Your task to perform on an android device: turn off location history Image 0: 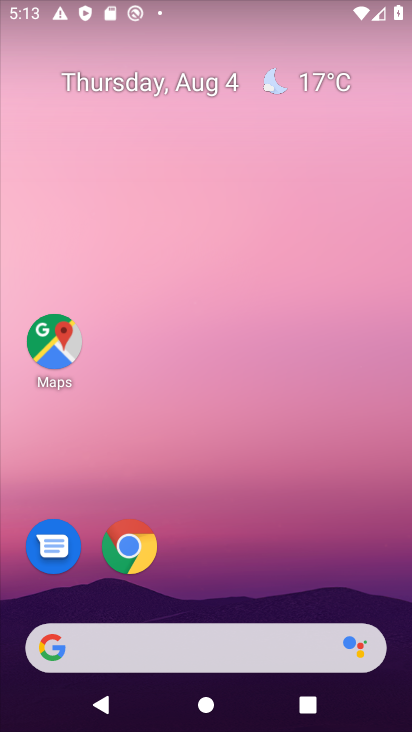
Step 0: drag from (219, 600) to (214, 43)
Your task to perform on an android device: turn off location history Image 1: 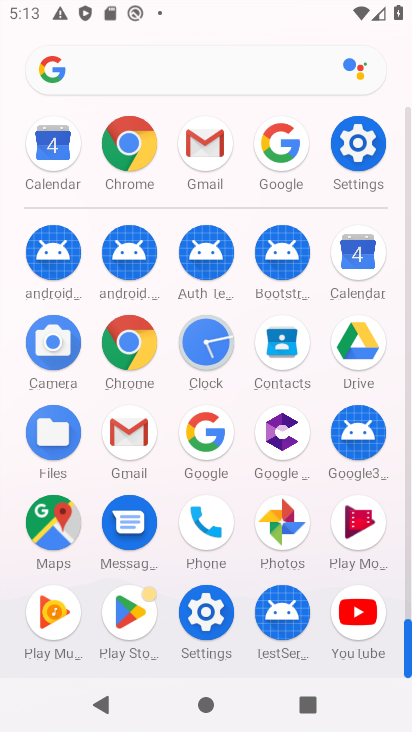
Step 1: click (358, 142)
Your task to perform on an android device: turn off location history Image 2: 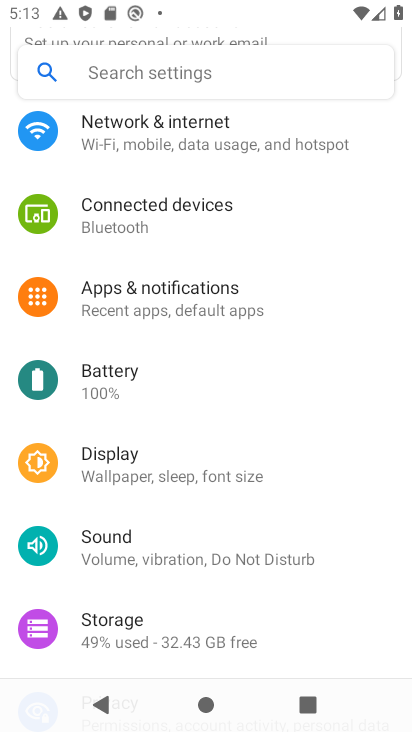
Step 2: drag from (118, 579) to (126, 267)
Your task to perform on an android device: turn off location history Image 3: 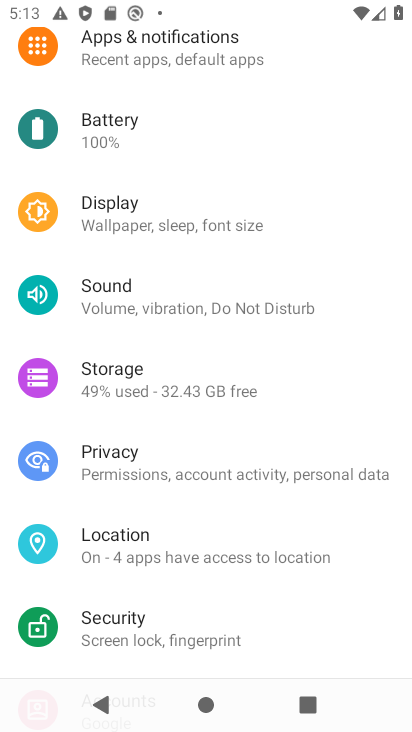
Step 3: click (139, 545)
Your task to perform on an android device: turn off location history Image 4: 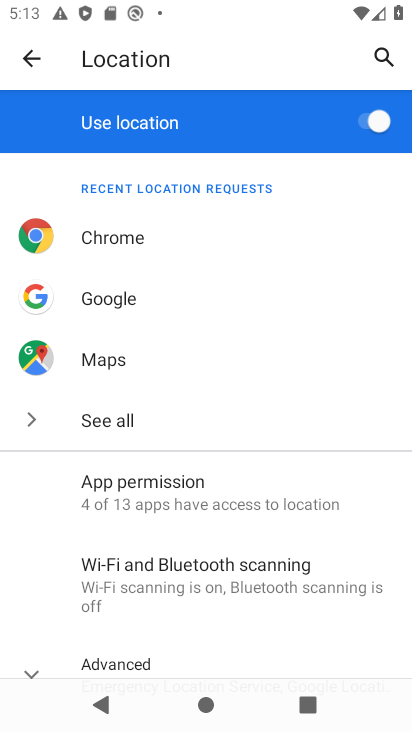
Step 4: drag from (159, 586) to (193, 371)
Your task to perform on an android device: turn off location history Image 5: 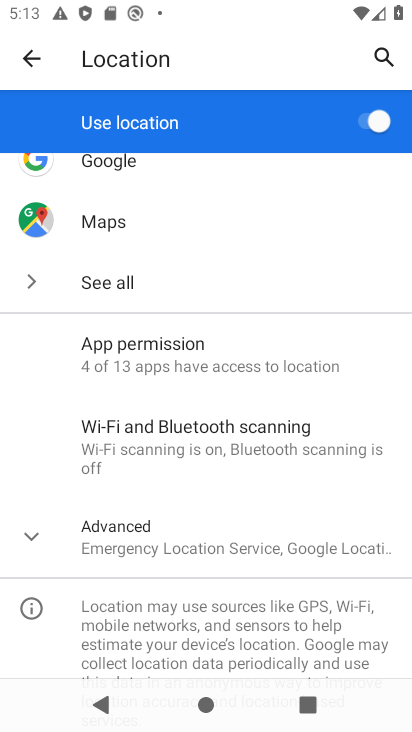
Step 5: click (123, 562)
Your task to perform on an android device: turn off location history Image 6: 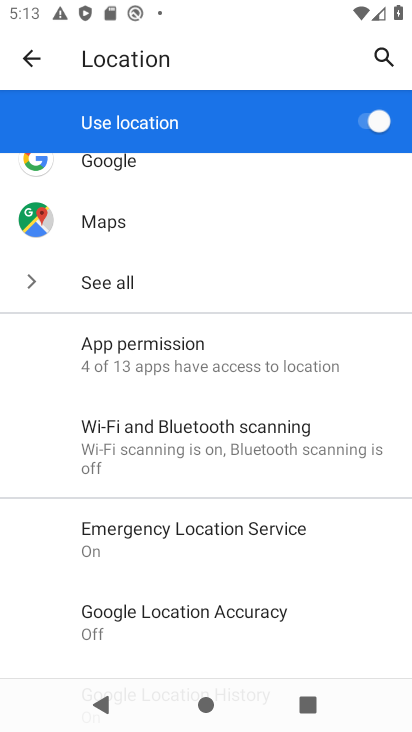
Step 6: drag from (142, 555) to (151, 355)
Your task to perform on an android device: turn off location history Image 7: 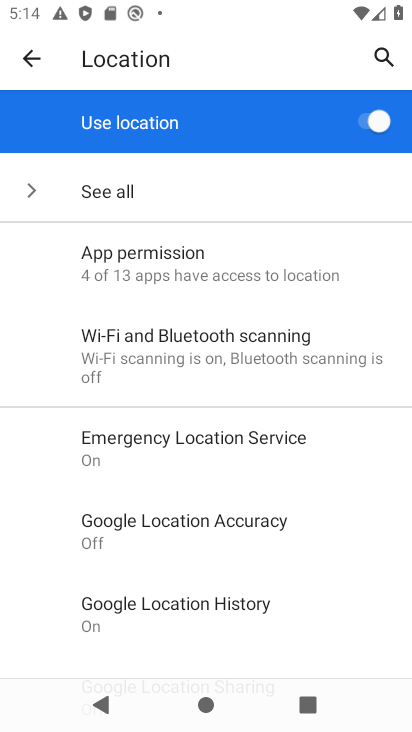
Step 7: click (218, 606)
Your task to perform on an android device: turn off location history Image 8: 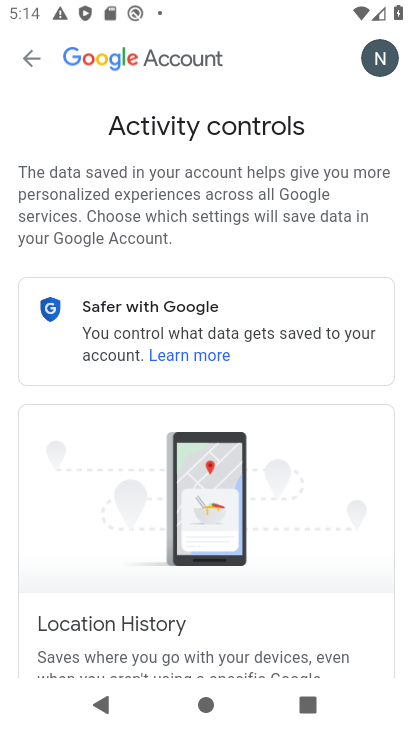
Step 8: drag from (272, 626) to (261, 132)
Your task to perform on an android device: turn off location history Image 9: 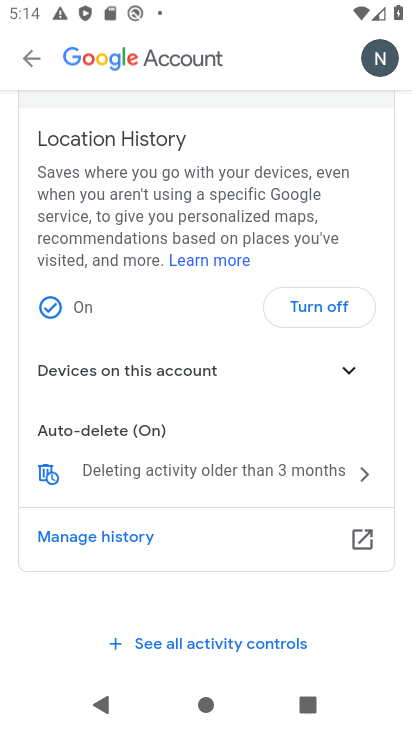
Step 9: click (319, 300)
Your task to perform on an android device: turn off location history Image 10: 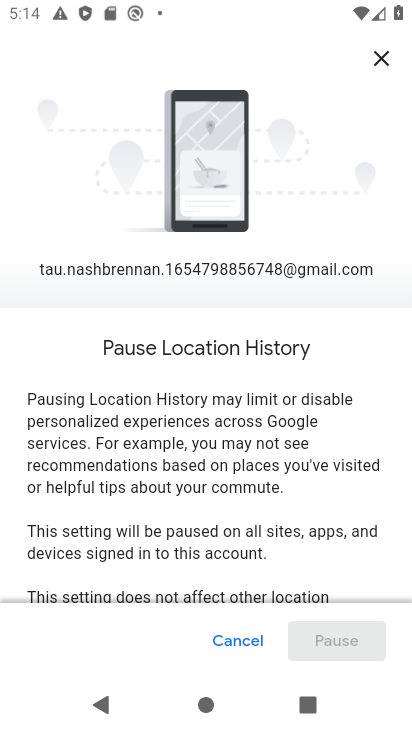
Step 10: drag from (286, 480) to (286, 149)
Your task to perform on an android device: turn off location history Image 11: 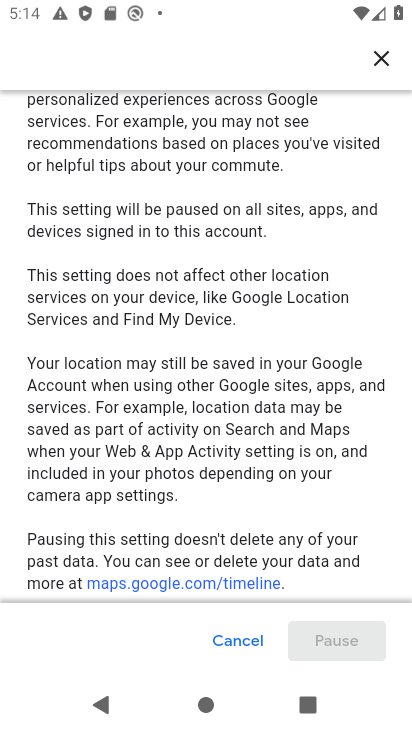
Step 11: drag from (237, 509) to (266, 187)
Your task to perform on an android device: turn off location history Image 12: 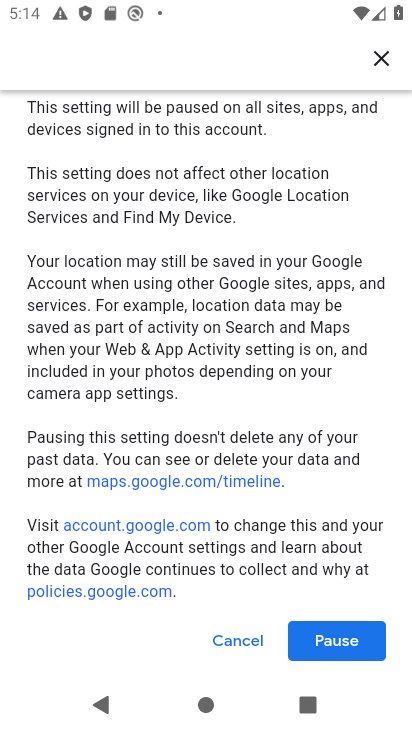
Step 12: drag from (277, 539) to (277, 249)
Your task to perform on an android device: turn off location history Image 13: 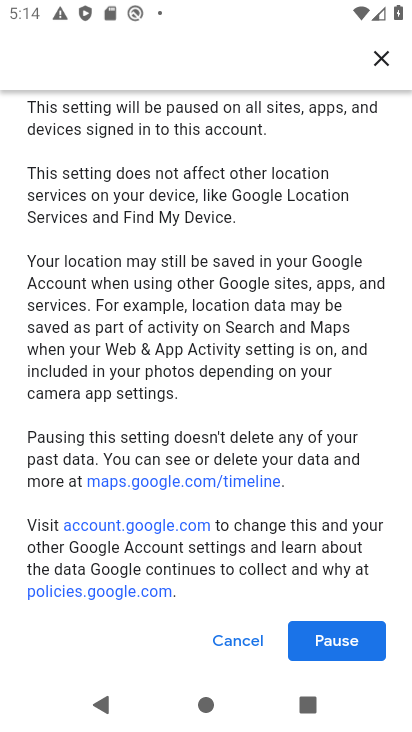
Step 13: click (317, 632)
Your task to perform on an android device: turn off location history Image 14: 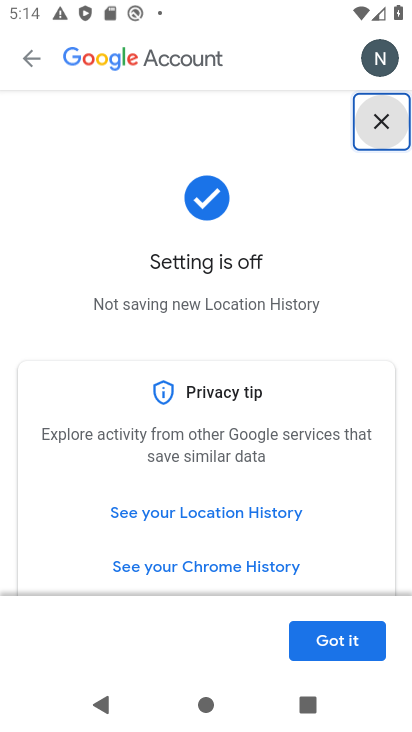
Step 14: click (319, 642)
Your task to perform on an android device: turn off location history Image 15: 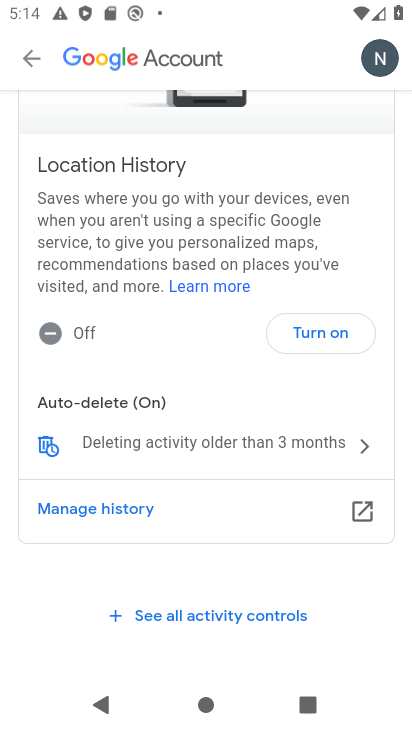
Step 15: task complete